Your task to perform on an android device: set the timer Image 0: 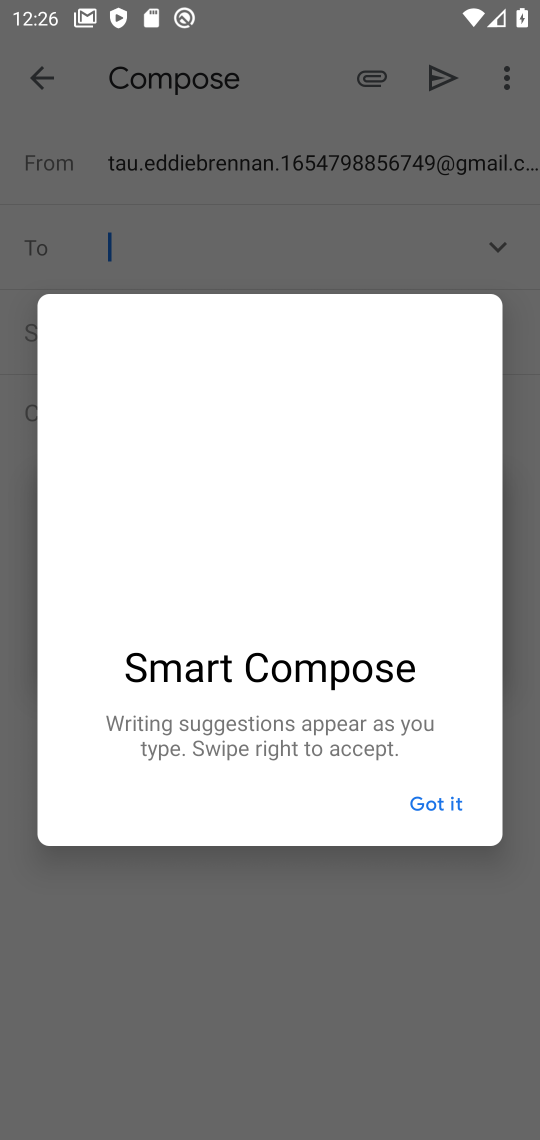
Step 0: press home button
Your task to perform on an android device: set the timer Image 1: 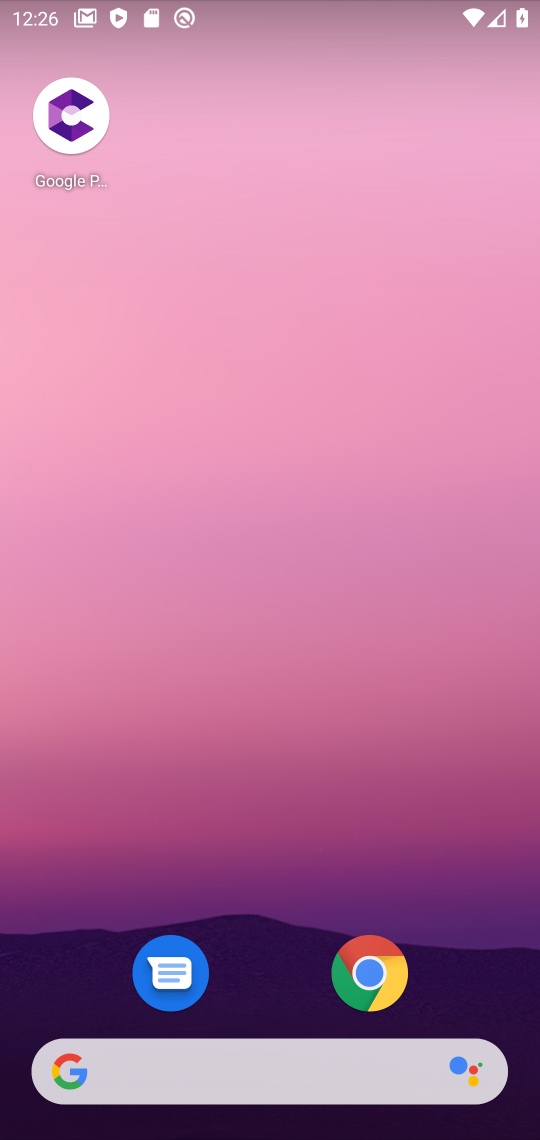
Step 1: drag from (285, 1059) to (187, 370)
Your task to perform on an android device: set the timer Image 2: 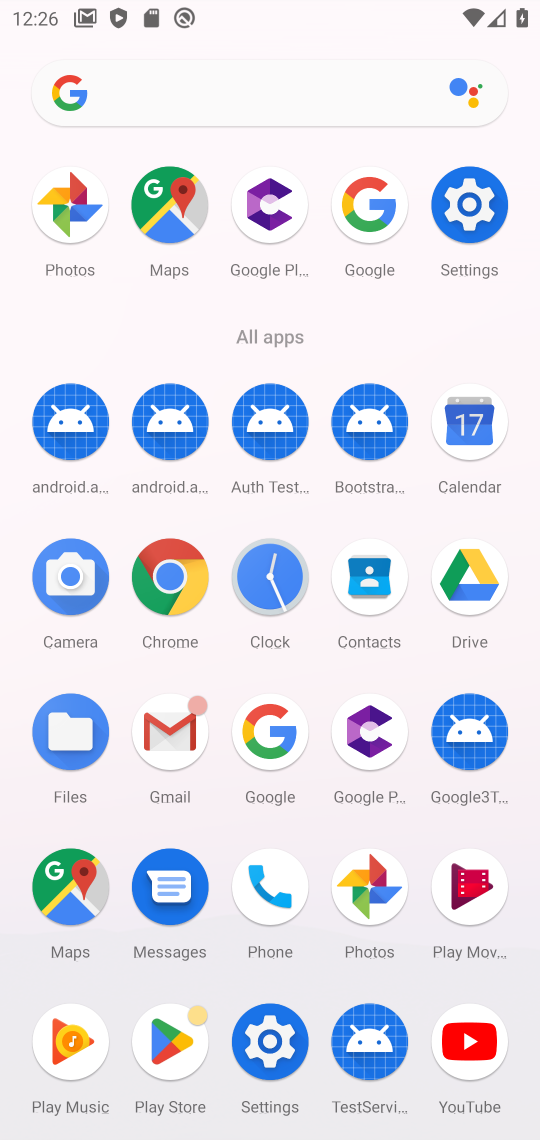
Step 2: click (273, 575)
Your task to perform on an android device: set the timer Image 3: 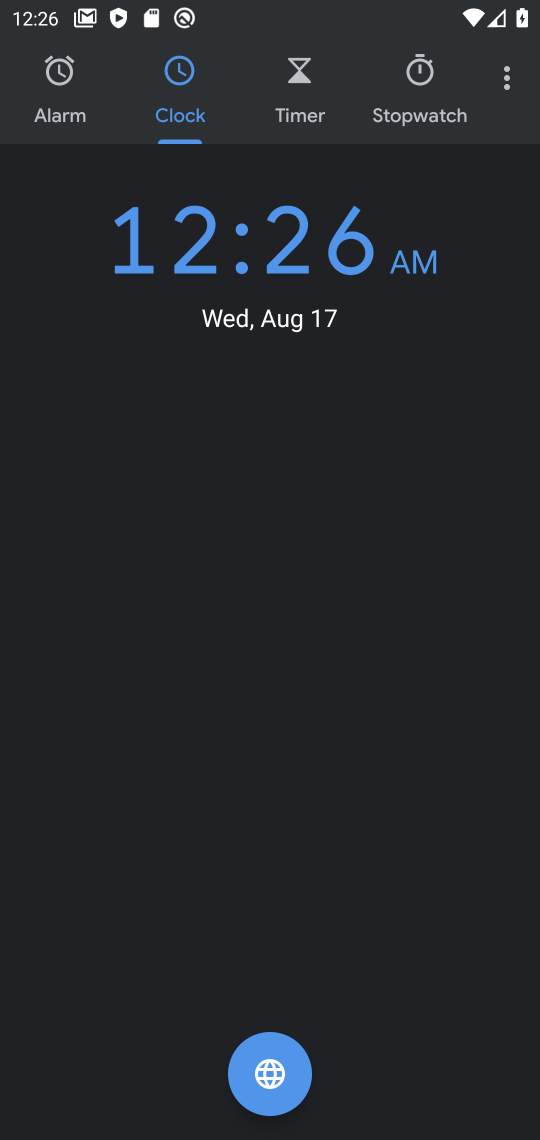
Step 3: click (305, 78)
Your task to perform on an android device: set the timer Image 4: 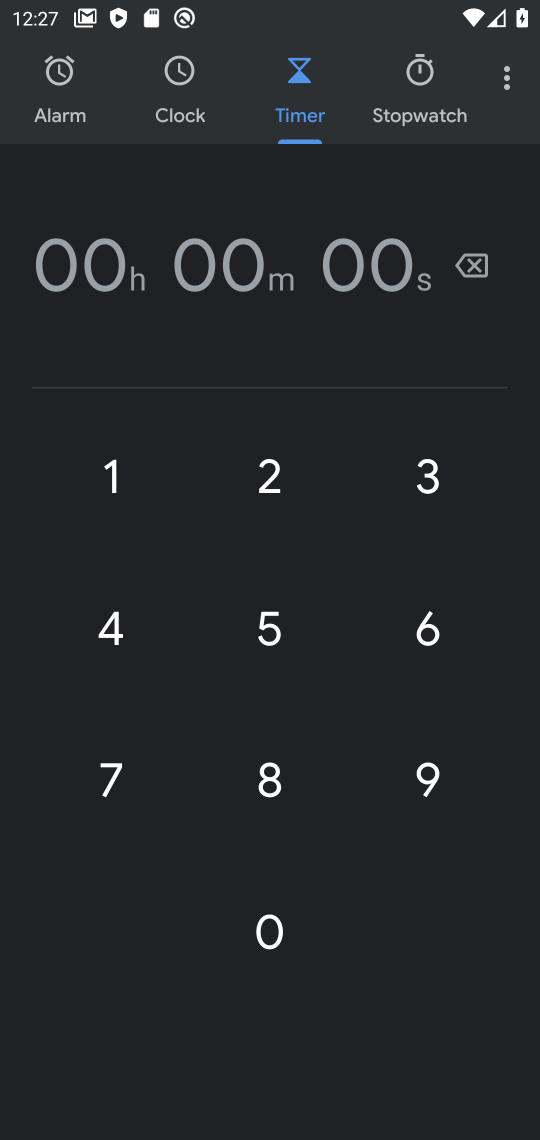
Step 4: type "136"
Your task to perform on an android device: set the timer Image 5: 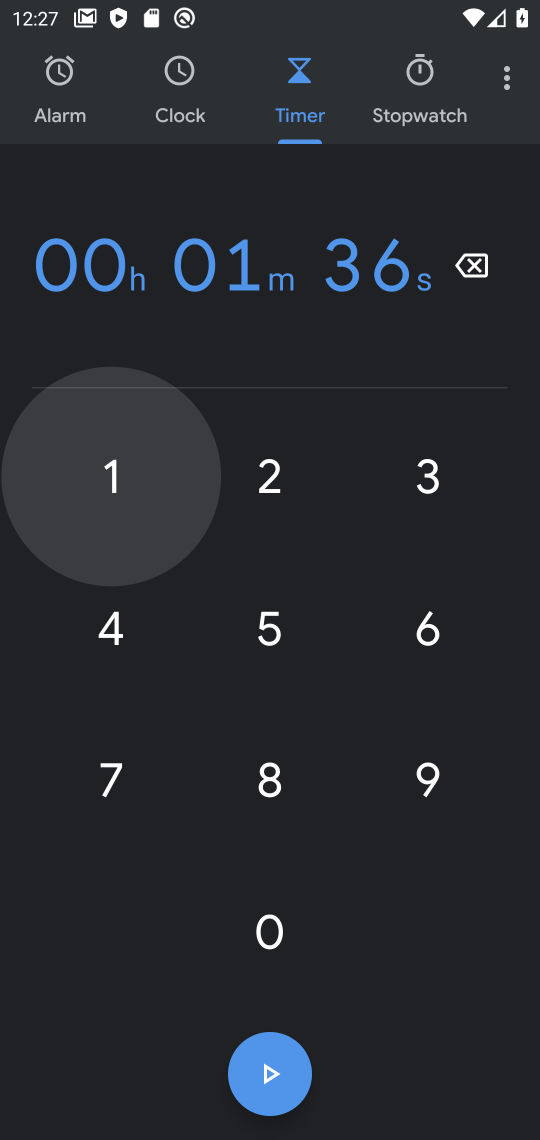
Step 5: click (260, 1092)
Your task to perform on an android device: set the timer Image 6: 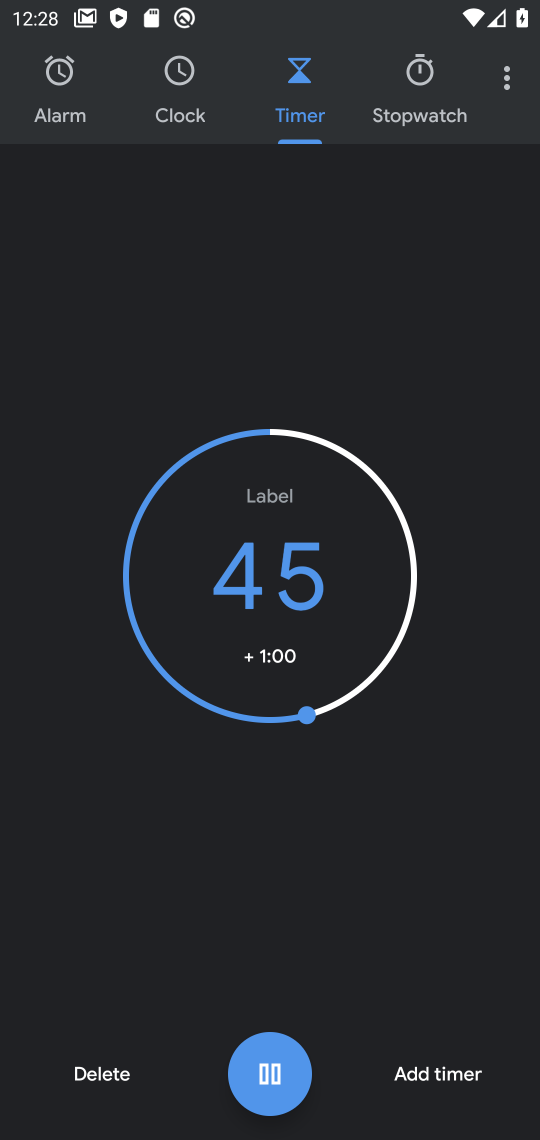
Step 6: click (275, 1060)
Your task to perform on an android device: set the timer Image 7: 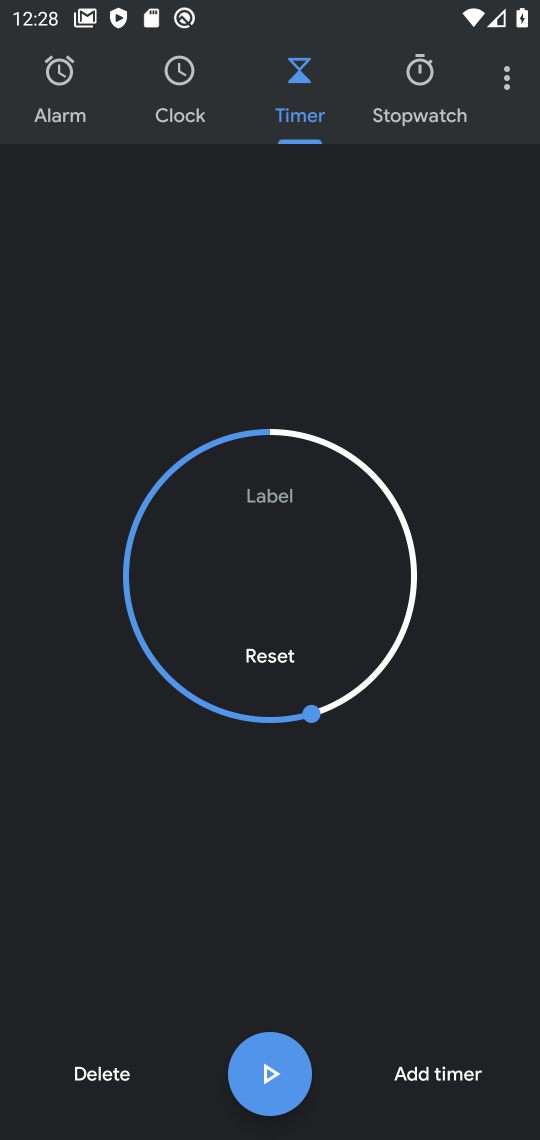
Step 7: task complete